Your task to perform on an android device: turn off airplane mode Image 0: 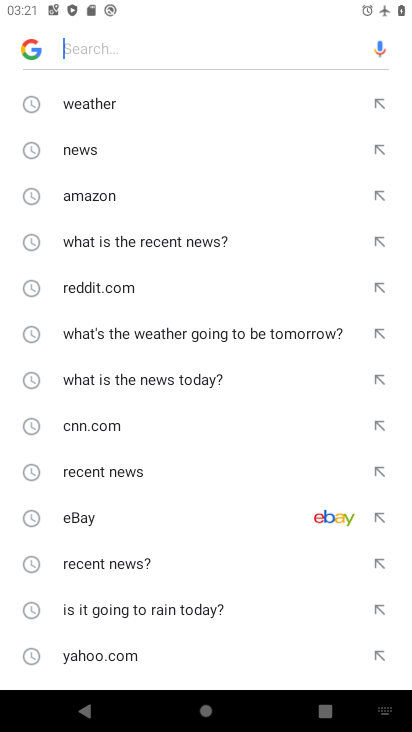
Step 0: press home button
Your task to perform on an android device: turn off airplane mode Image 1: 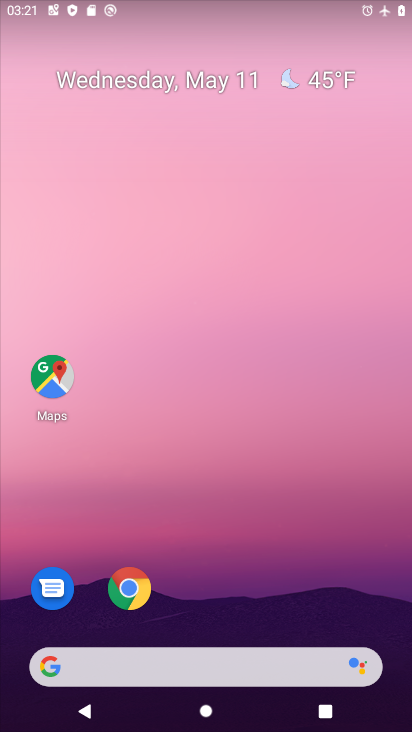
Step 1: drag from (285, 599) to (260, 239)
Your task to perform on an android device: turn off airplane mode Image 2: 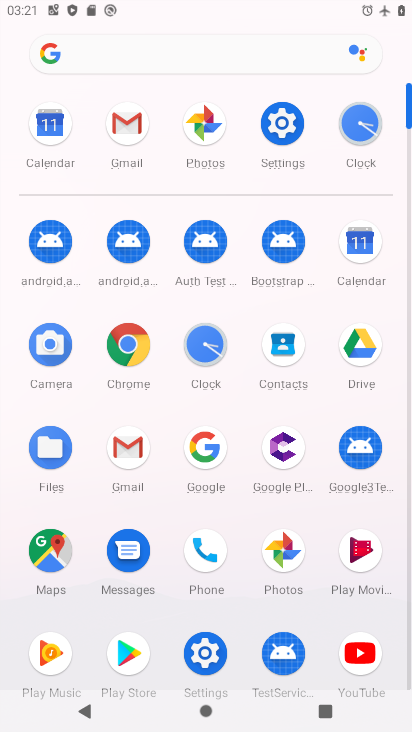
Step 2: click (274, 128)
Your task to perform on an android device: turn off airplane mode Image 3: 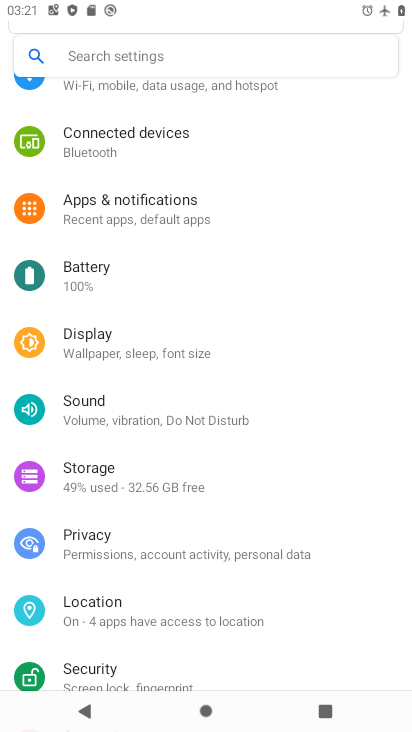
Step 3: drag from (225, 240) to (245, 543)
Your task to perform on an android device: turn off airplane mode Image 4: 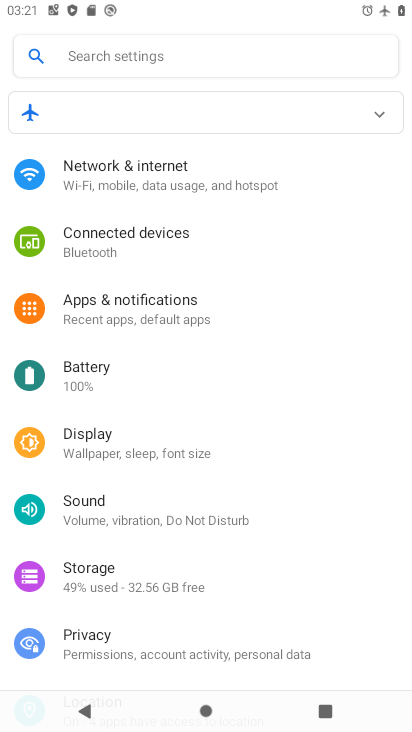
Step 4: click (174, 195)
Your task to perform on an android device: turn off airplane mode Image 5: 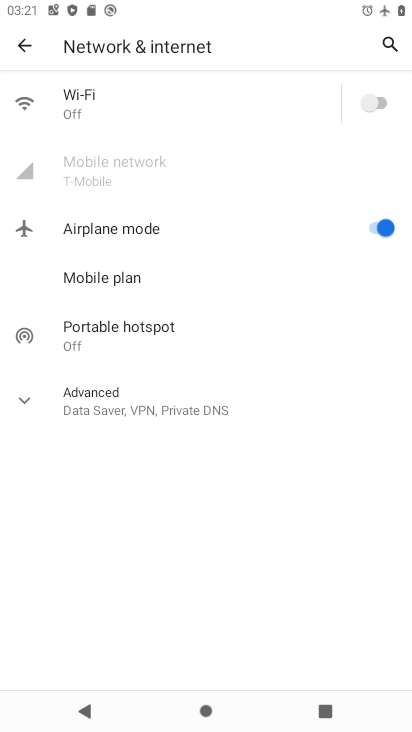
Step 5: click (377, 231)
Your task to perform on an android device: turn off airplane mode Image 6: 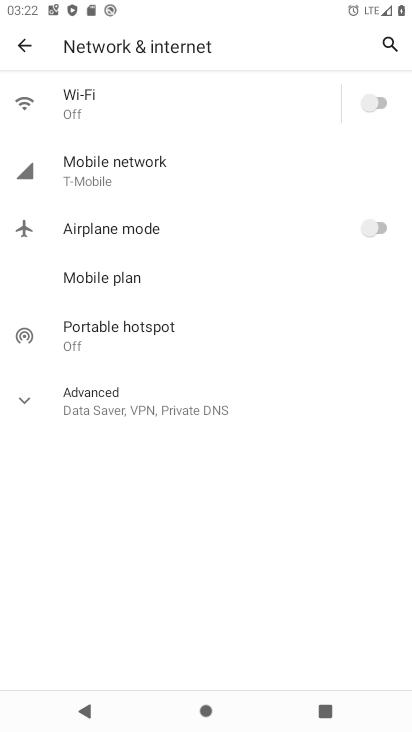
Step 6: task complete